Your task to perform on an android device: Install the Weather app Image 0: 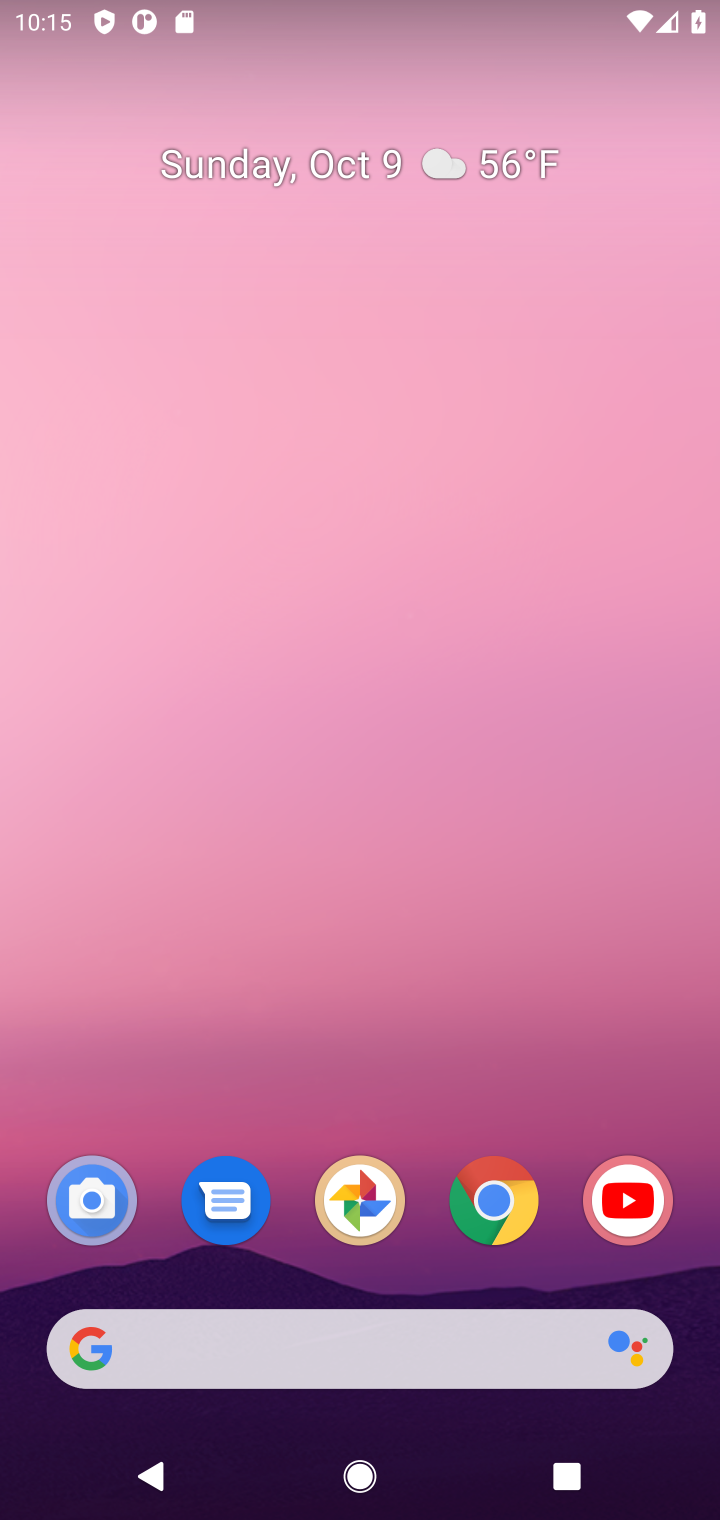
Step 0: drag from (508, 1358) to (399, 145)
Your task to perform on an android device: Install the Weather app Image 1: 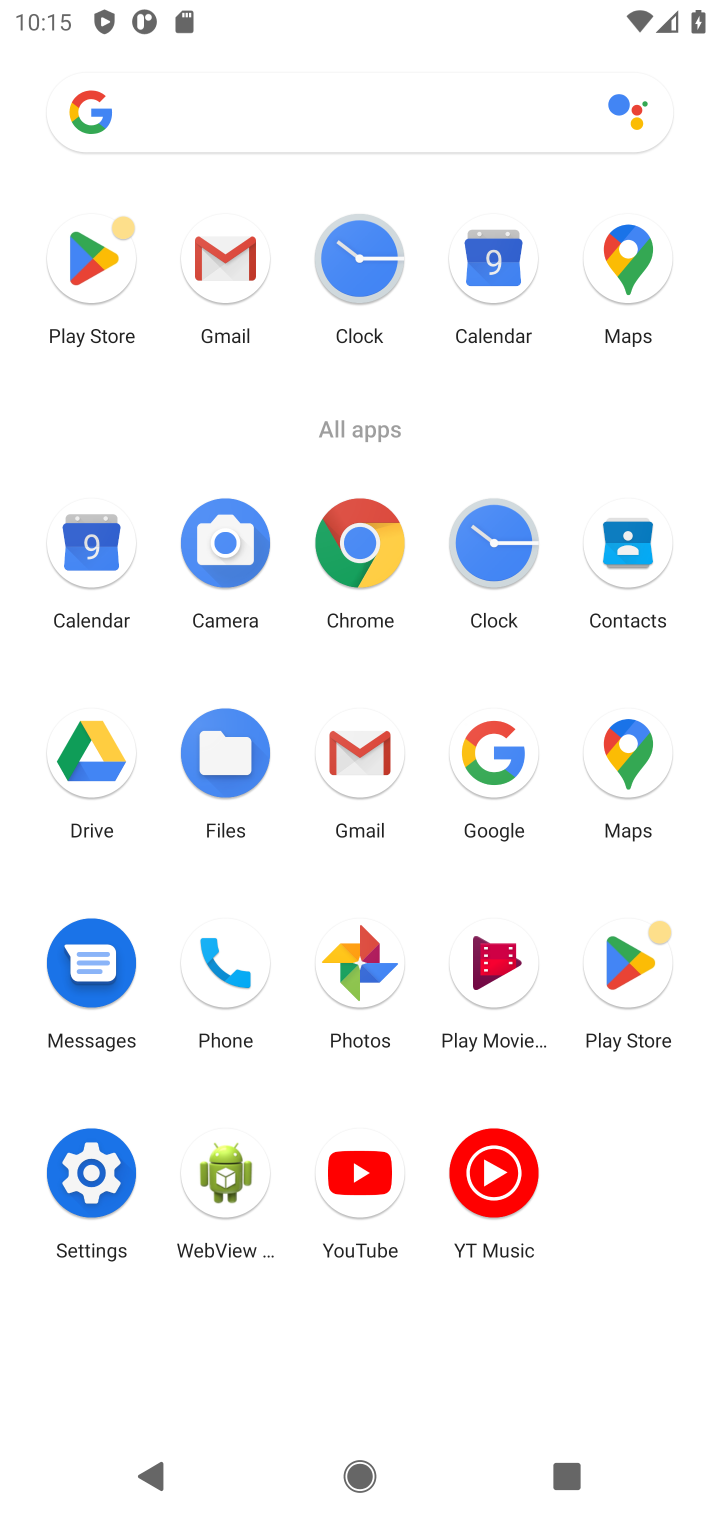
Step 1: click (399, 145)
Your task to perform on an android device: Install the Weather app Image 2: 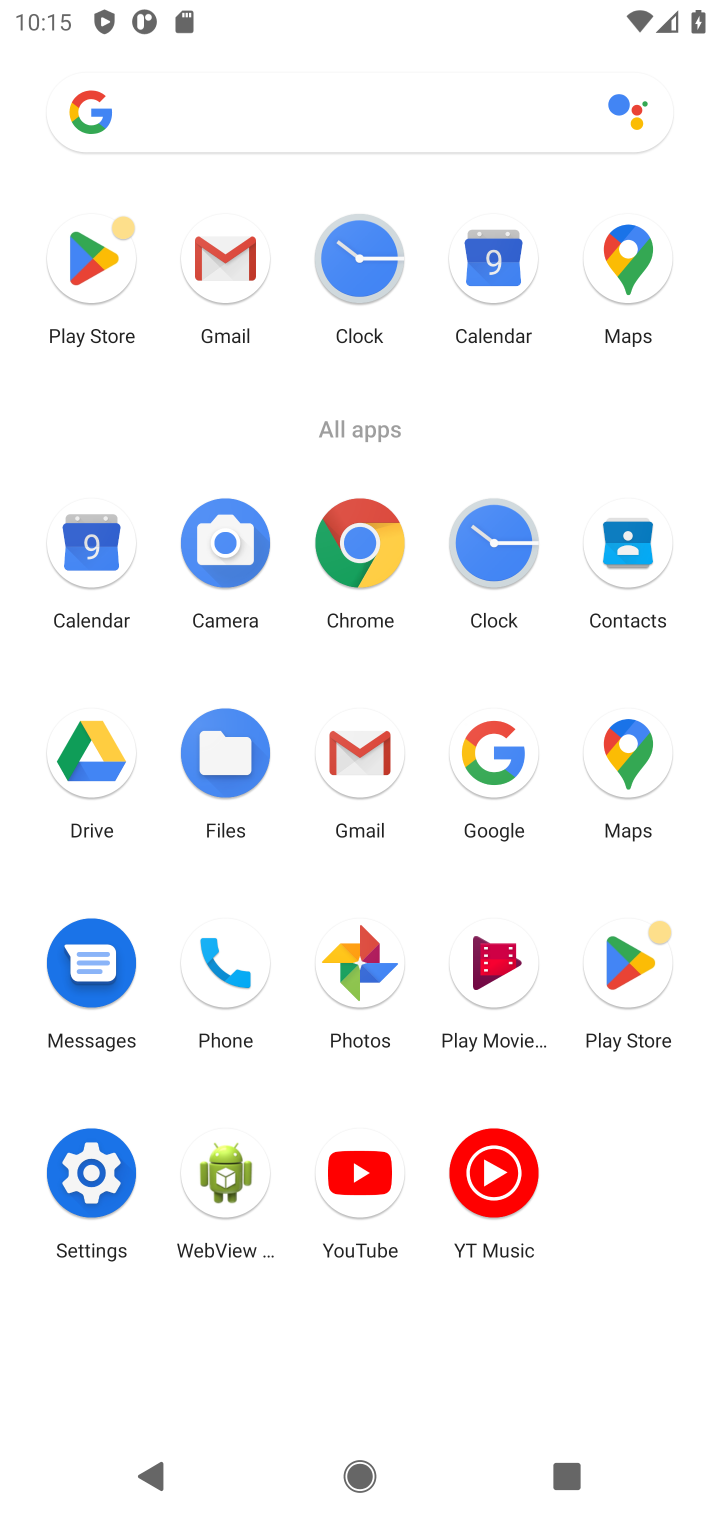
Step 2: click (636, 977)
Your task to perform on an android device: Install the Weather app Image 3: 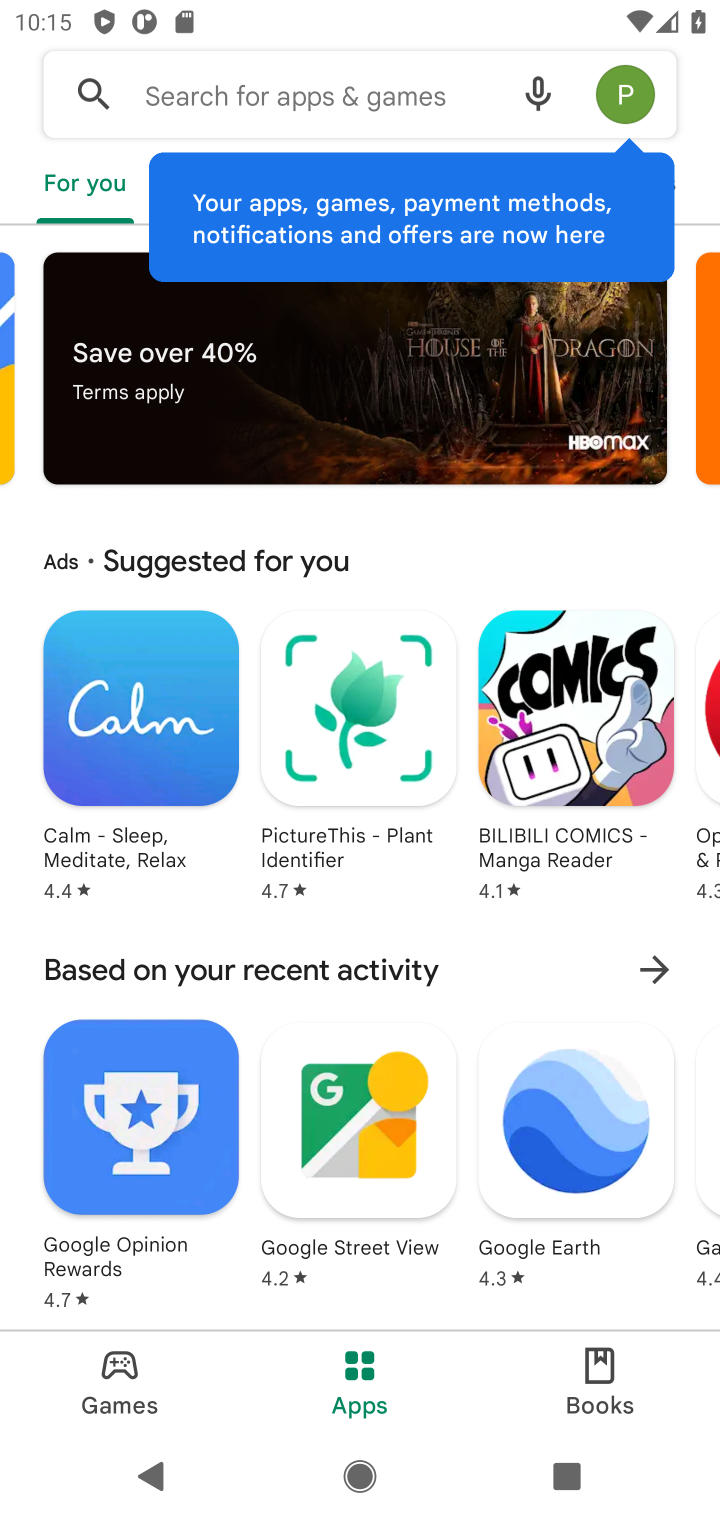
Step 3: click (322, 100)
Your task to perform on an android device: Install the Weather app Image 4: 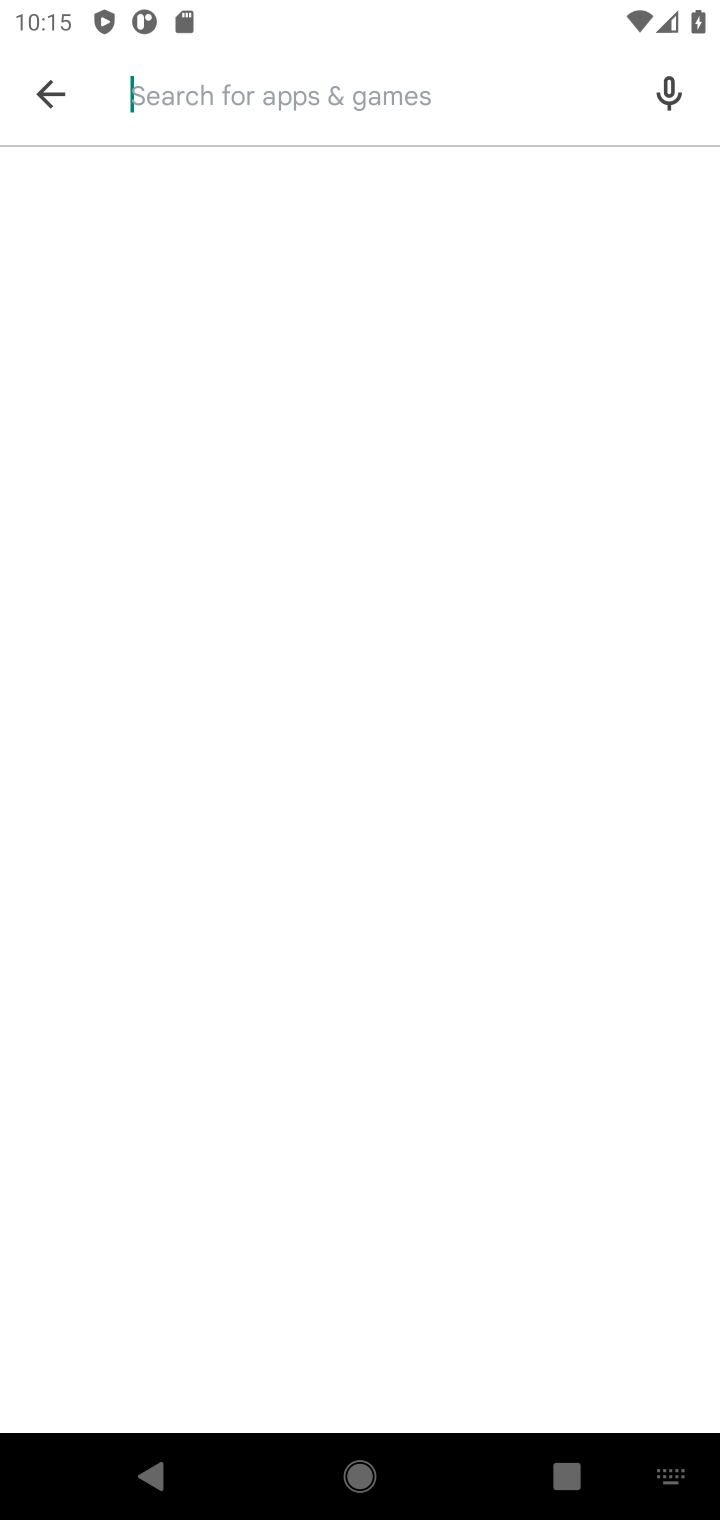
Step 4: type "weahter app"
Your task to perform on an android device: Install the Weather app Image 5: 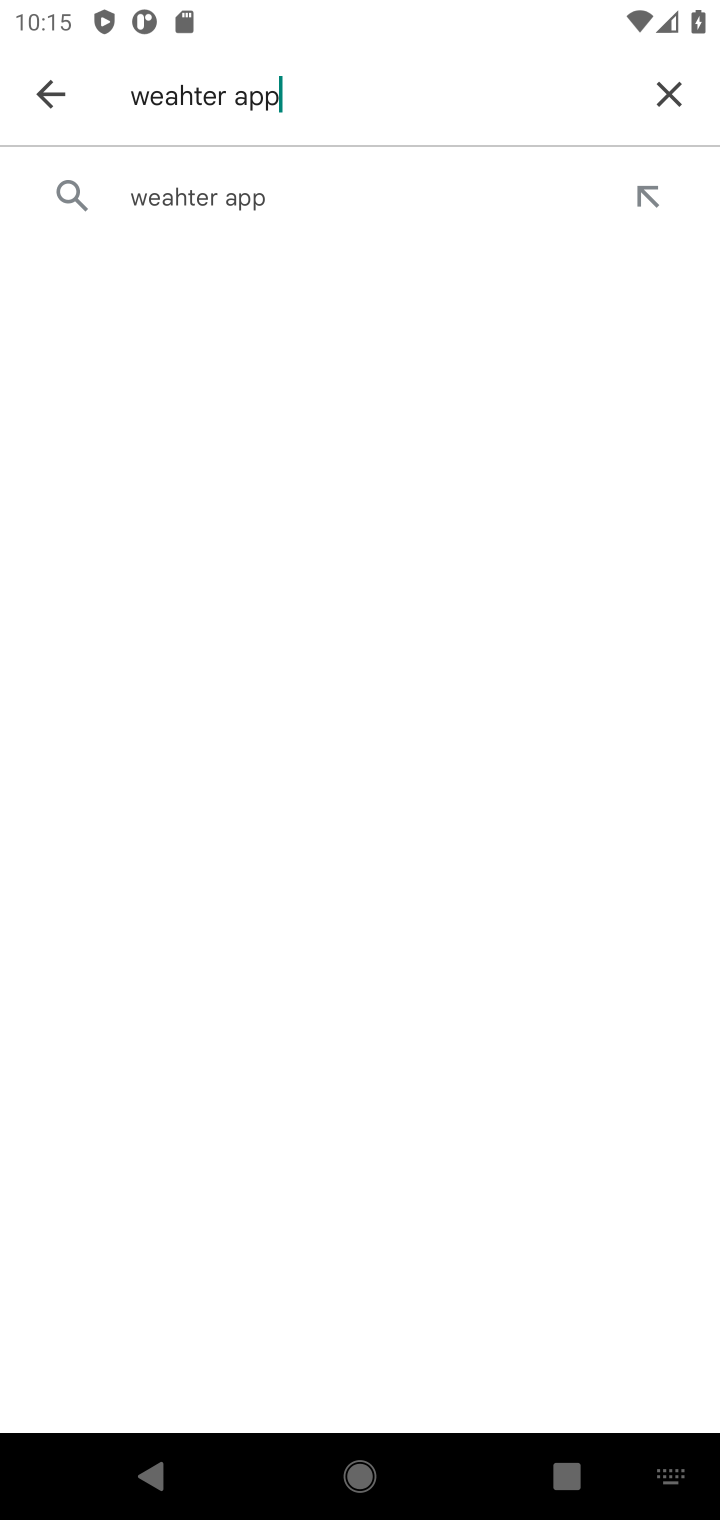
Step 5: click (254, 203)
Your task to perform on an android device: Install the Weather app Image 6: 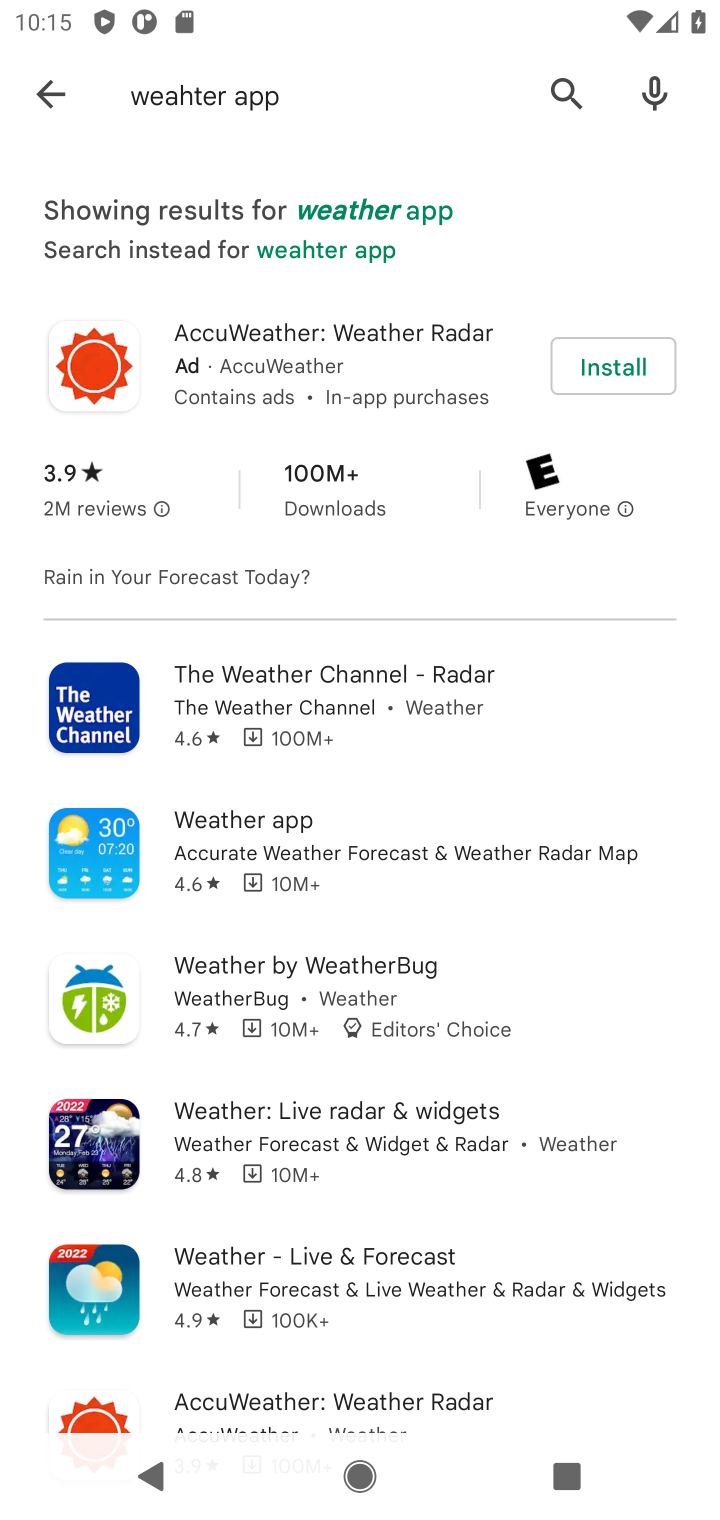
Step 6: click (593, 354)
Your task to perform on an android device: Install the Weather app Image 7: 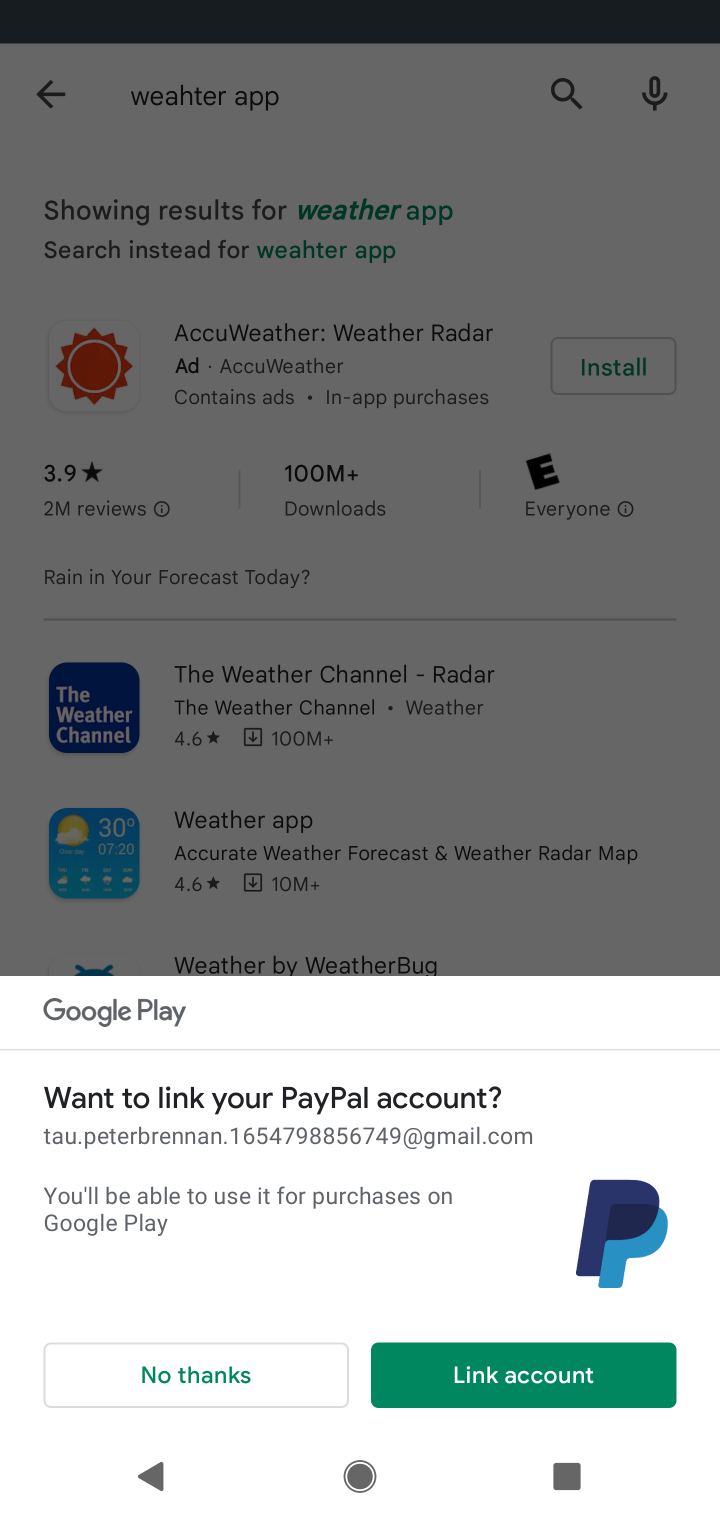
Step 7: click (250, 1384)
Your task to perform on an android device: Install the Weather app Image 8: 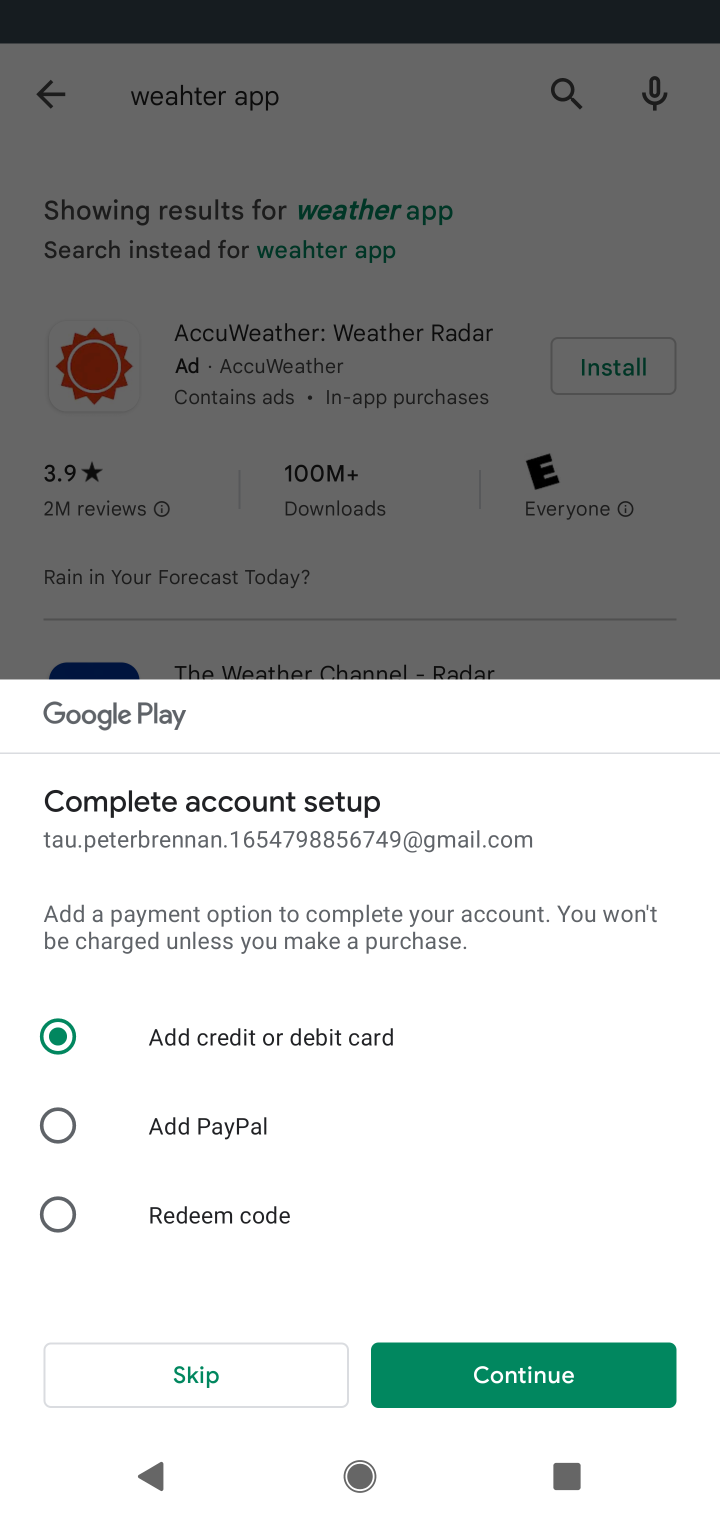
Step 8: click (286, 1378)
Your task to perform on an android device: Install the Weather app Image 9: 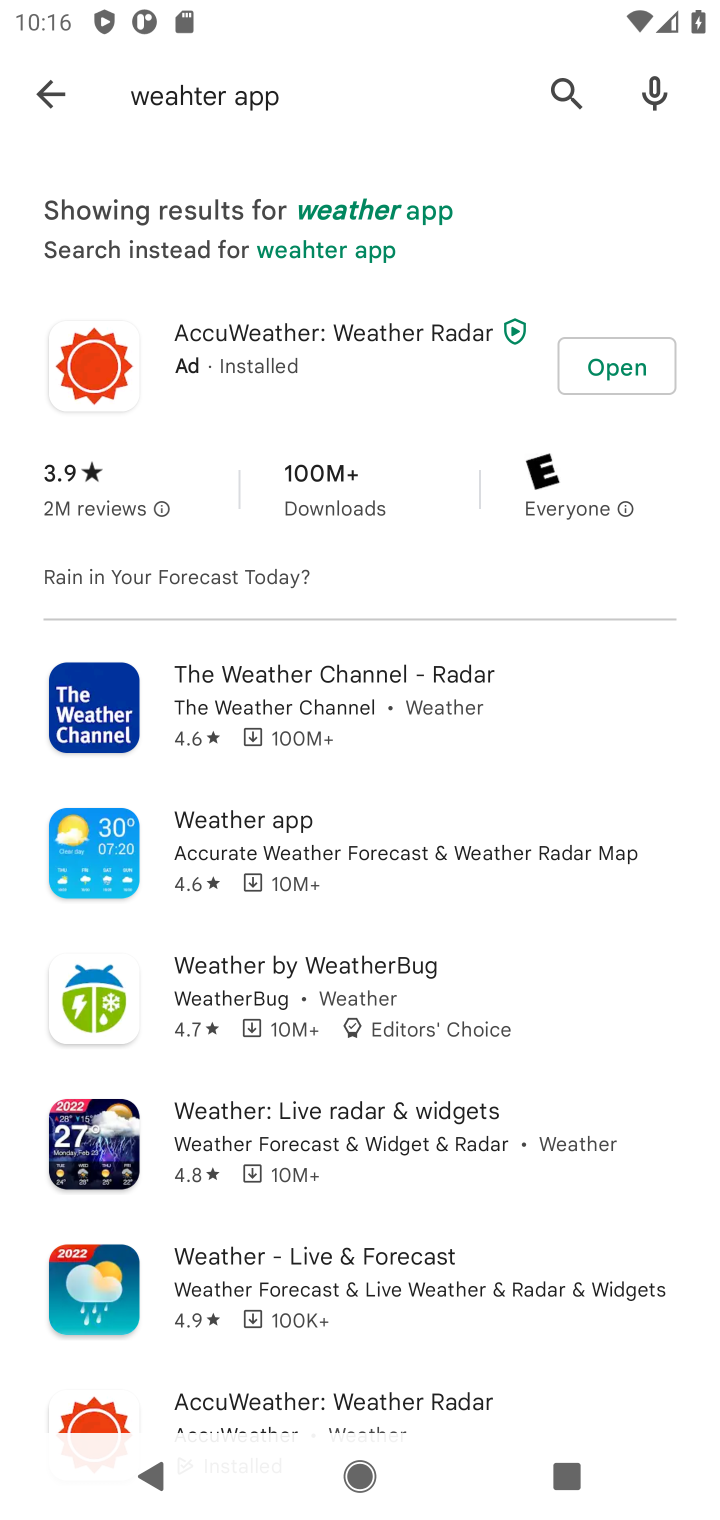
Step 9: task complete